Your task to perform on an android device: Open privacy settings Image 0: 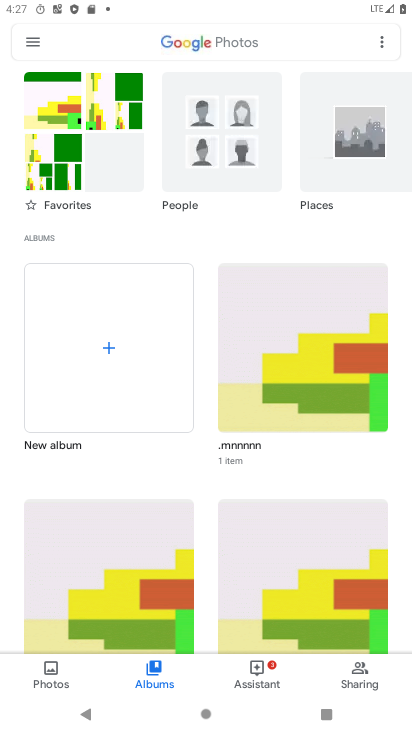
Step 0: press home button
Your task to perform on an android device: Open privacy settings Image 1: 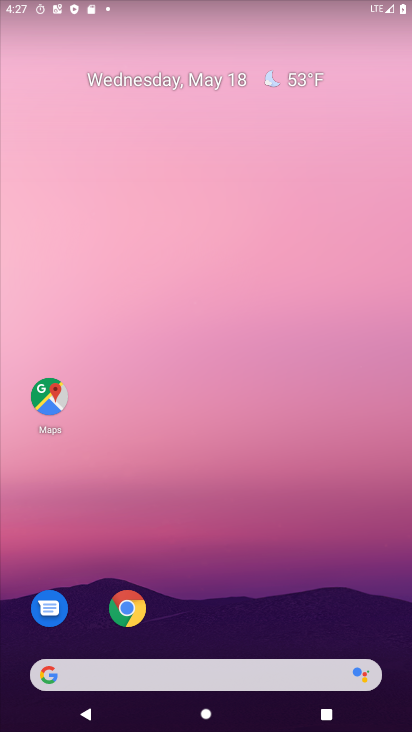
Step 1: drag from (231, 678) to (326, 11)
Your task to perform on an android device: Open privacy settings Image 2: 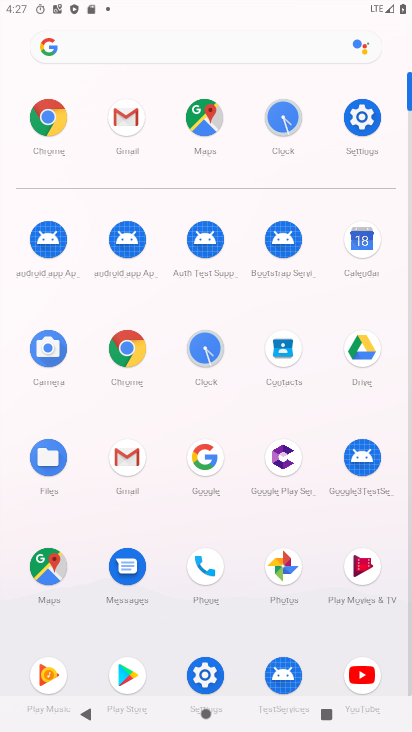
Step 2: click (366, 111)
Your task to perform on an android device: Open privacy settings Image 3: 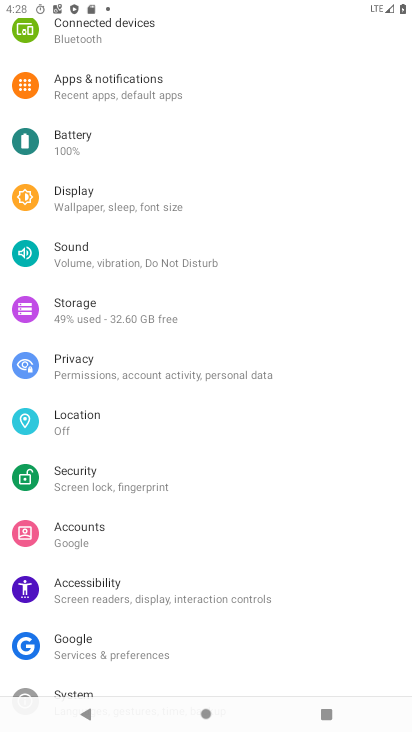
Step 3: click (60, 376)
Your task to perform on an android device: Open privacy settings Image 4: 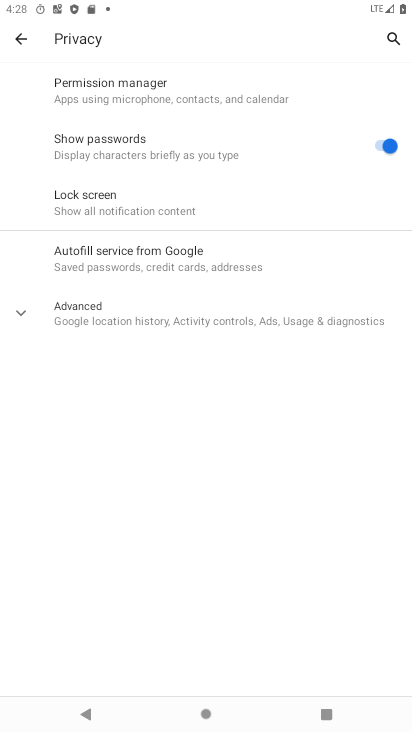
Step 4: task complete